Your task to perform on an android device: Do I have any events today? Image 0: 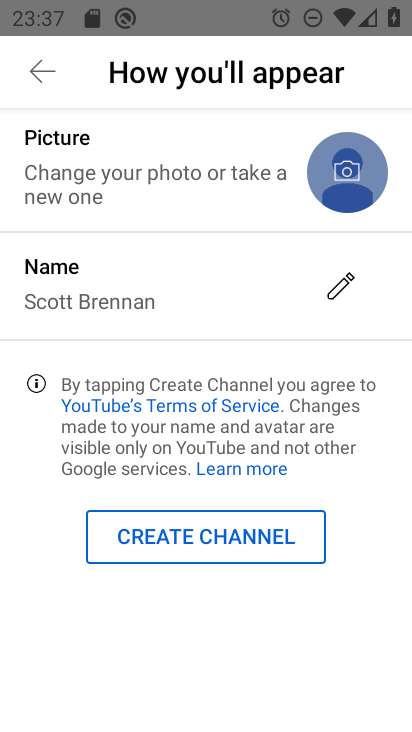
Step 0: press home button
Your task to perform on an android device: Do I have any events today? Image 1: 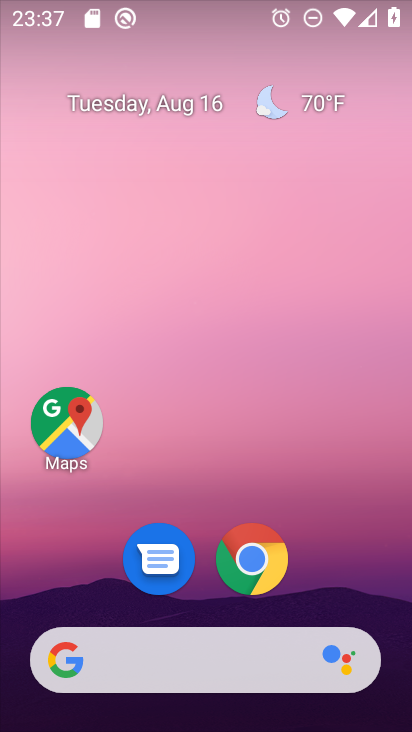
Step 1: drag from (166, 682) to (166, 196)
Your task to perform on an android device: Do I have any events today? Image 2: 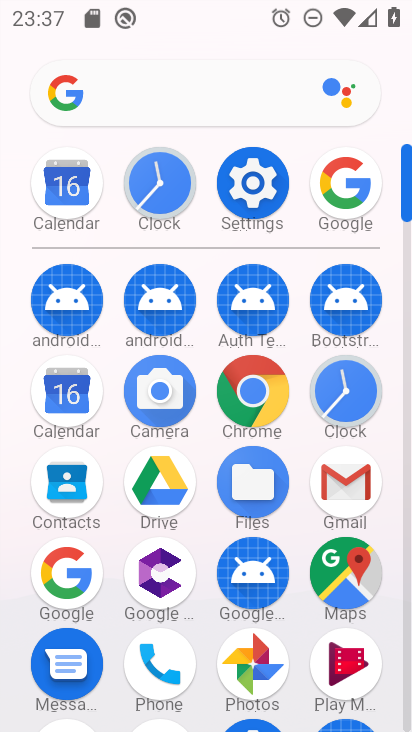
Step 2: click (74, 185)
Your task to perform on an android device: Do I have any events today? Image 3: 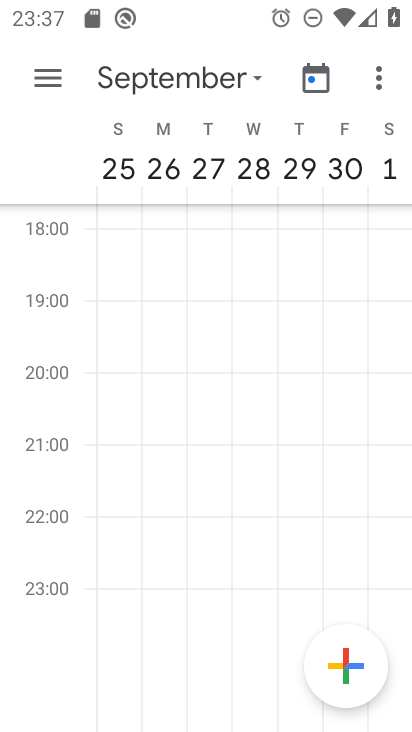
Step 3: click (315, 74)
Your task to perform on an android device: Do I have any events today? Image 4: 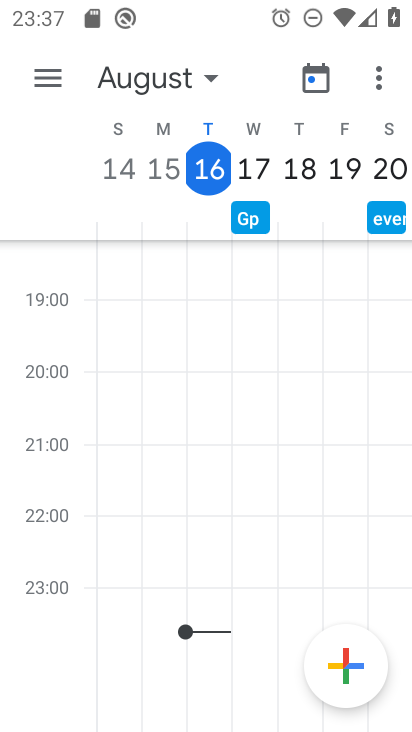
Step 4: click (215, 76)
Your task to perform on an android device: Do I have any events today? Image 5: 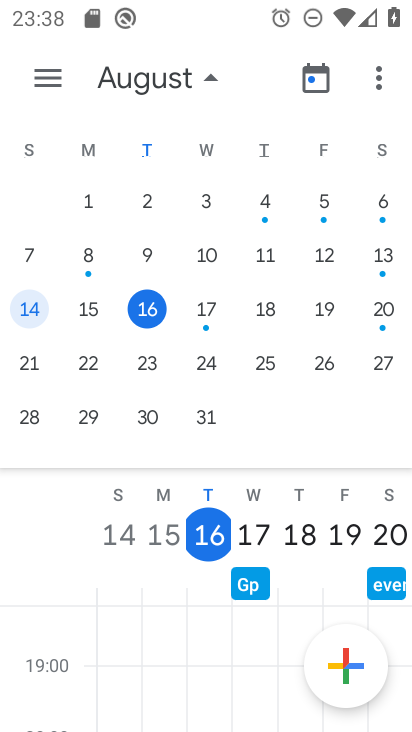
Step 5: click (210, 314)
Your task to perform on an android device: Do I have any events today? Image 6: 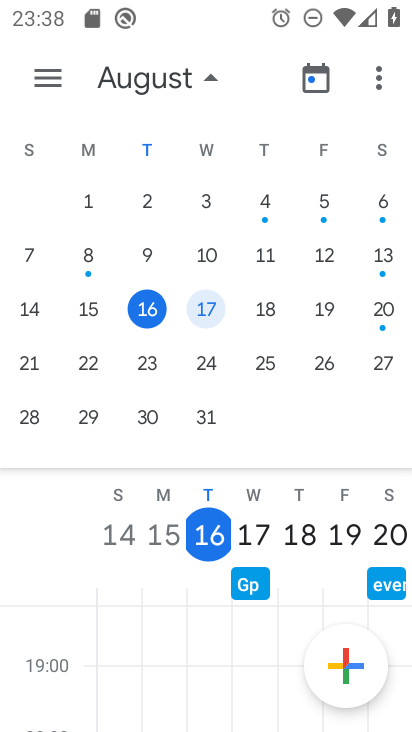
Step 6: click (133, 315)
Your task to perform on an android device: Do I have any events today? Image 7: 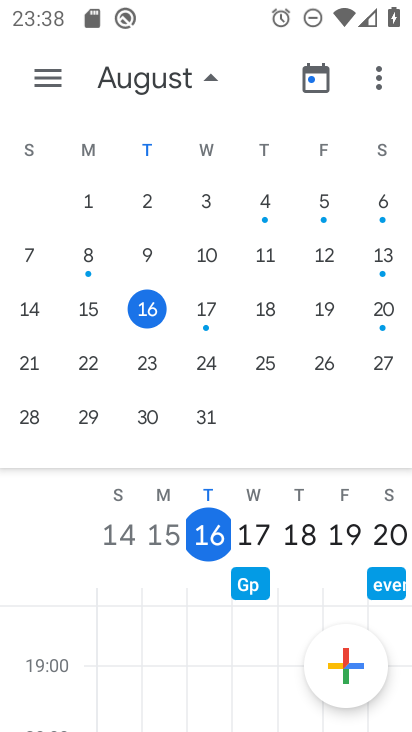
Step 7: click (47, 80)
Your task to perform on an android device: Do I have any events today? Image 8: 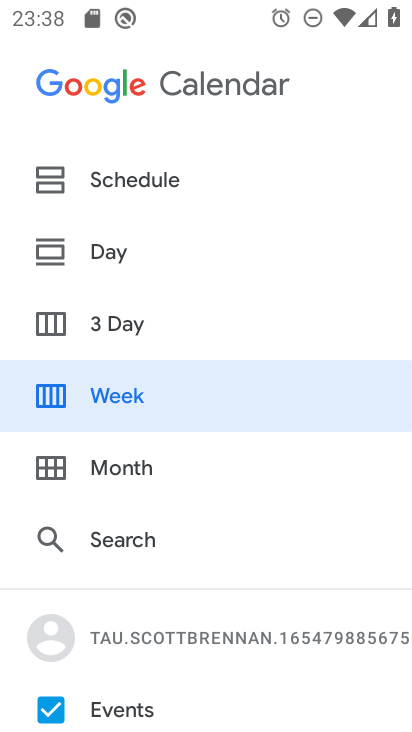
Step 8: click (127, 172)
Your task to perform on an android device: Do I have any events today? Image 9: 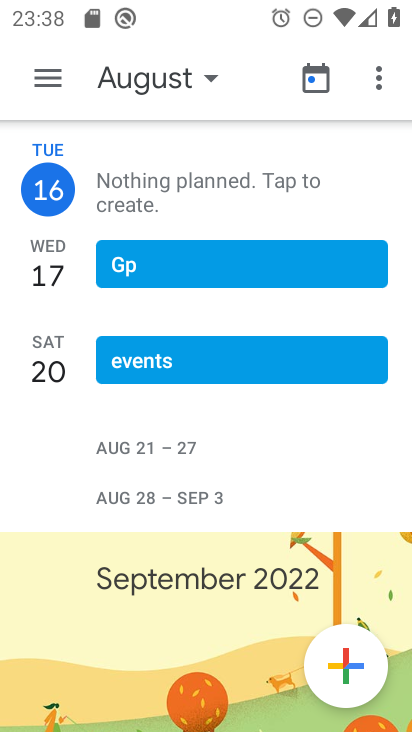
Step 9: task complete